Your task to perform on an android device: turn on the 24-hour format for clock Image 0: 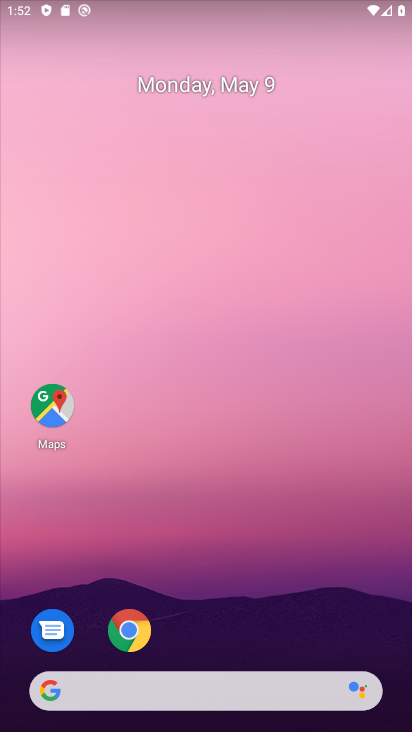
Step 0: drag from (215, 599) to (298, 0)
Your task to perform on an android device: turn on the 24-hour format for clock Image 1: 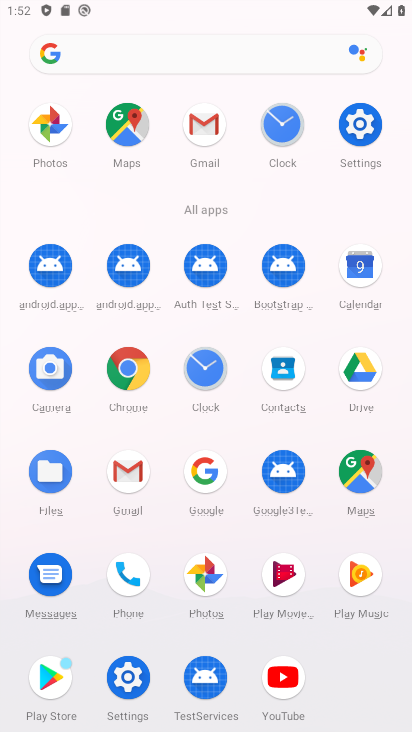
Step 1: click (281, 124)
Your task to perform on an android device: turn on the 24-hour format for clock Image 2: 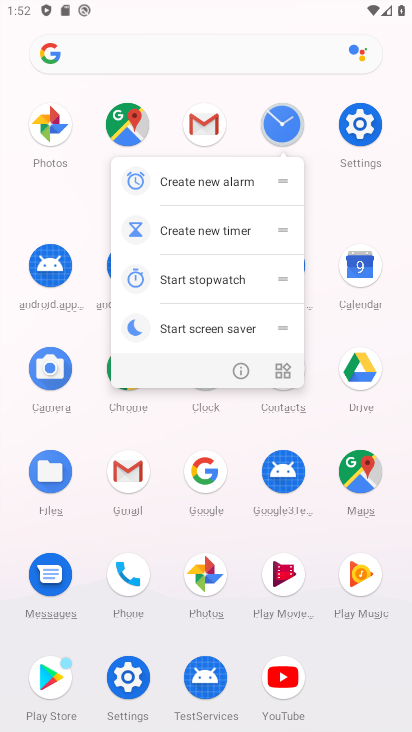
Step 2: click (284, 127)
Your task to perform on an android device: turn on the 24-hour format for clock Image 3: 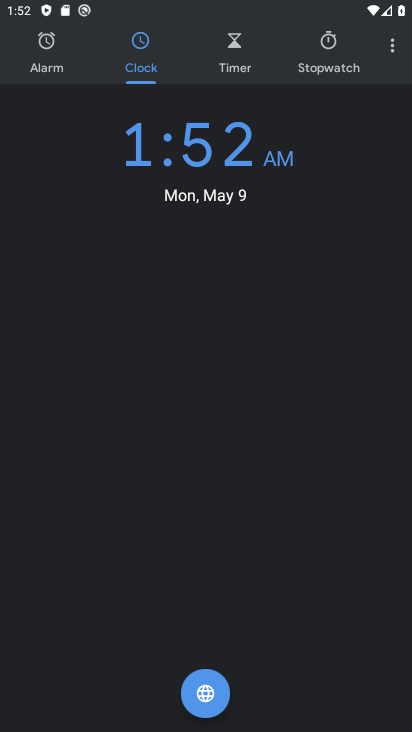
Step 3: click (394, 46)
Your task to perform on an android device: turn on the 24-hour format for clock Image 4: 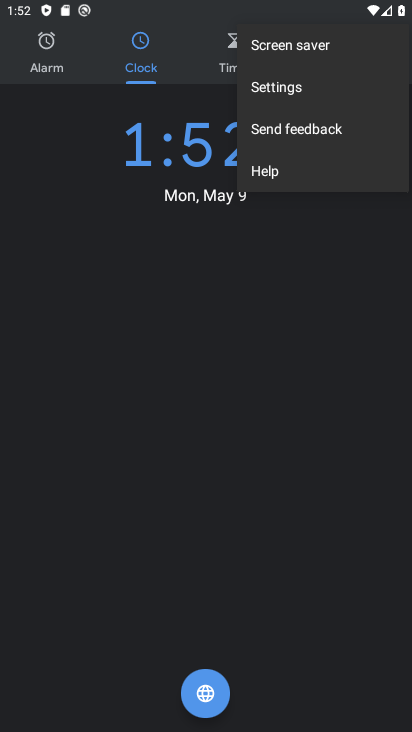
Step 4: click (298, 93)
Your task to perform on an android device: turn on the 24-hour format for clock Image 5: 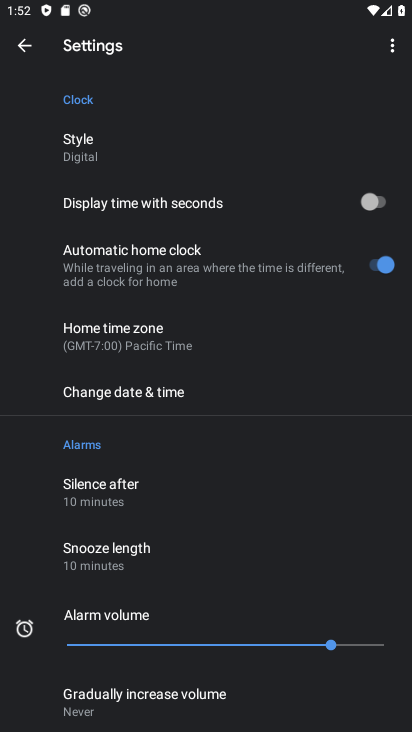
Step 5: drag from (174, 447) to (209, 358)
Your task to perform on an android device: turn on the 24-hour format for clock Image 6: 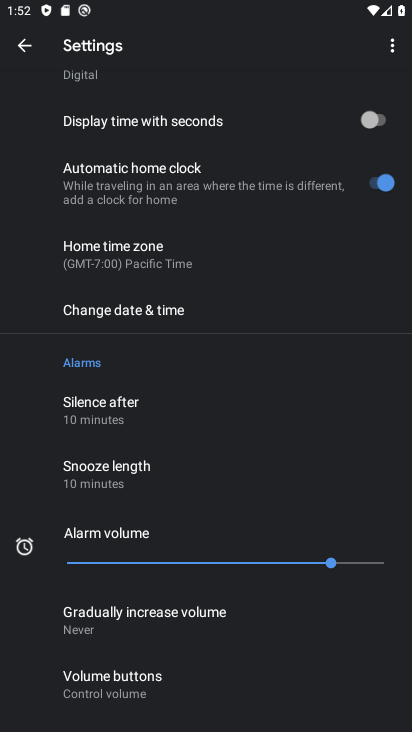
Step 6: drag from (188, 493) to (242, 389)
Your task to perform on an android device: turn on the 24-hour format for clock Image 7: 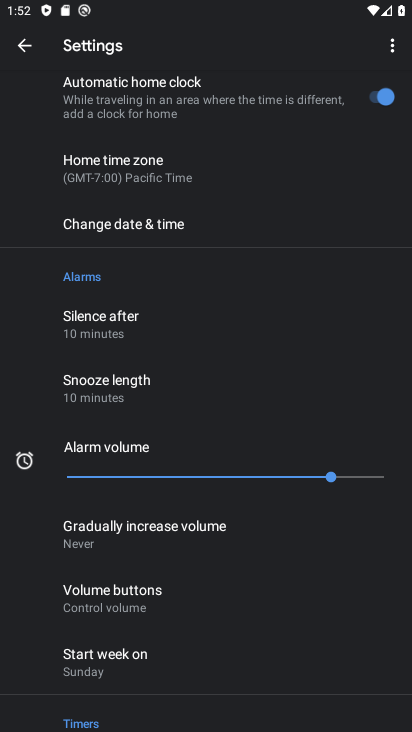
Step 7: drag from (234, 444) to (304, 330)
Your task to perform on an android device: turn on the 24-hour format for clock Image 8: 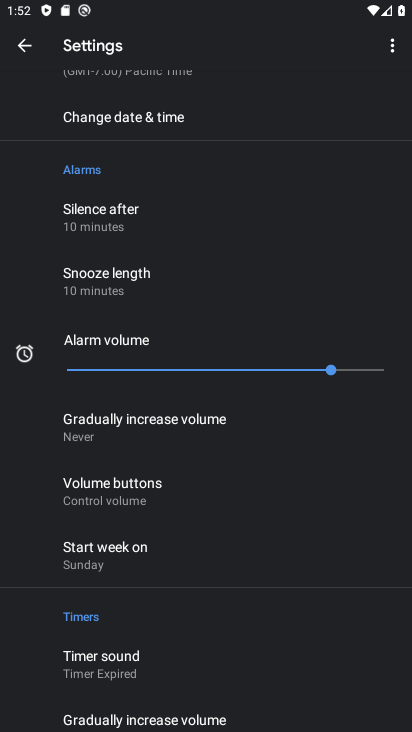
Step 8: click (123, 118)
Your task to perform on an android device: turn on the 24-hour format for clock Image 9: 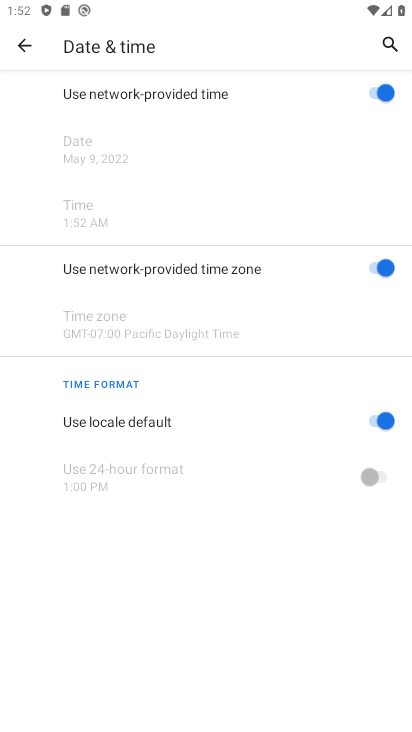
Step 9: click (390, 413)
Your task to perform on an android device: turn on the 24-hour format for clock Image 10: 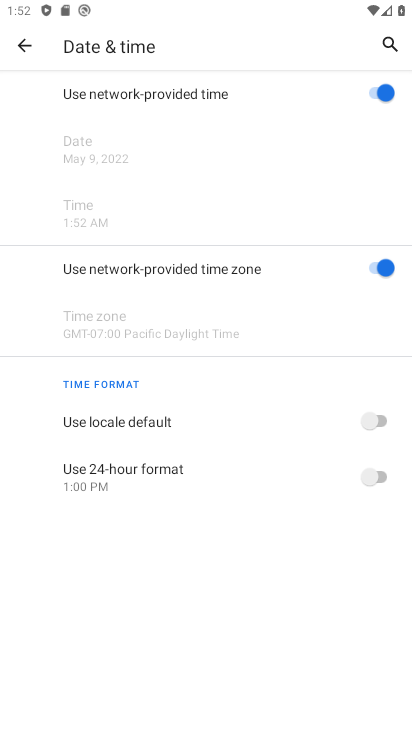
Step 10: click (374, 480)
Your task to perform on an android device: turn on the 24-hour format for clock Image 11: 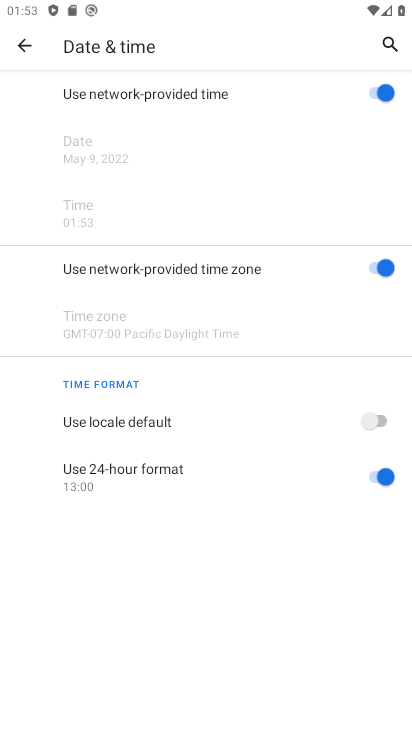
Step 11: task complete